Your task to perform on an android device: empty trash in google photos Image 0: 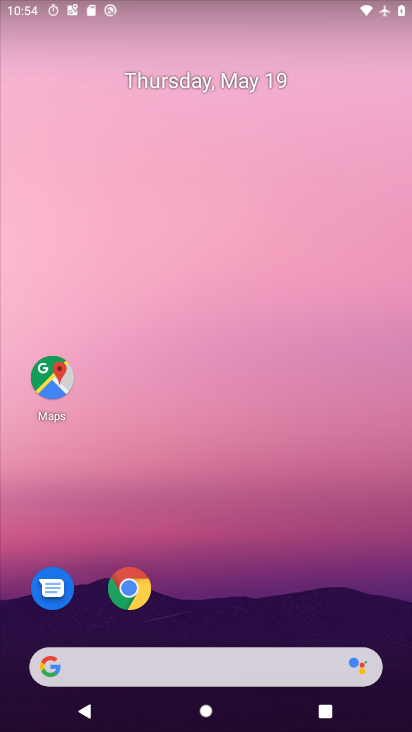
Step 0: press home button
Your task to perform on an android device: empty trash in google photos Image 1: 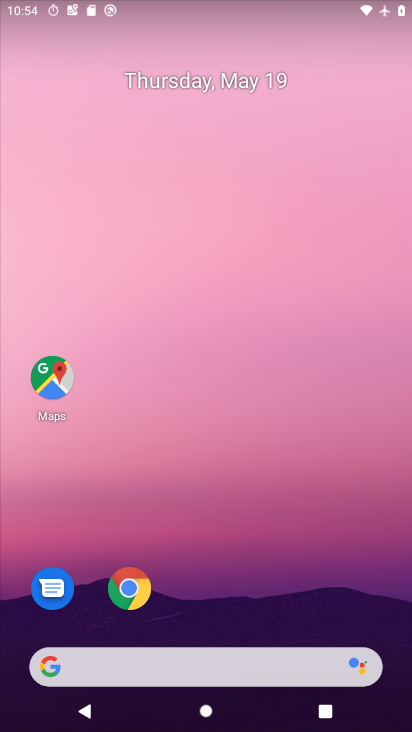
Step 1: drag from (162, 658) to (275, 175)
Your task to perform on an android device: empty trash in google photos Image 2: 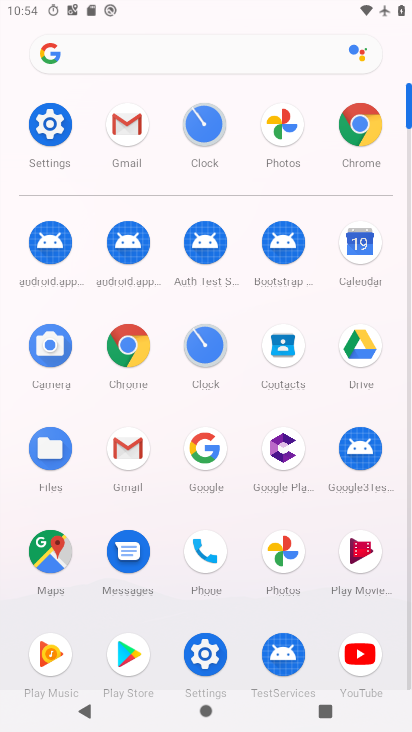
Step 2: click (283, 548)
Your task to perform on an android device: empty trash in google photos Image 3: 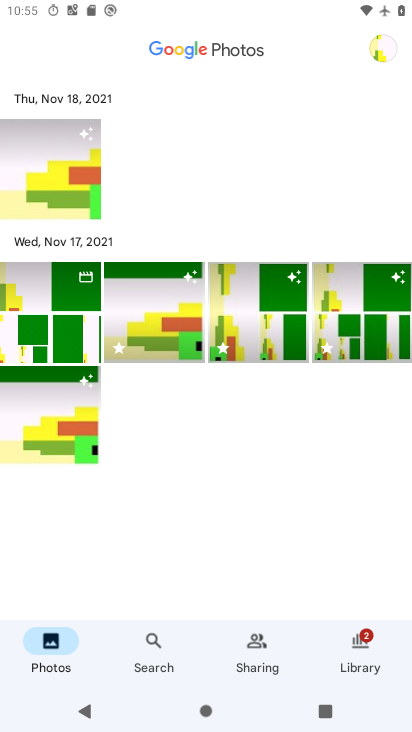
Step 3: click (360, 663)
Your task to perform on an android device: empty trash in google photos Image 4: 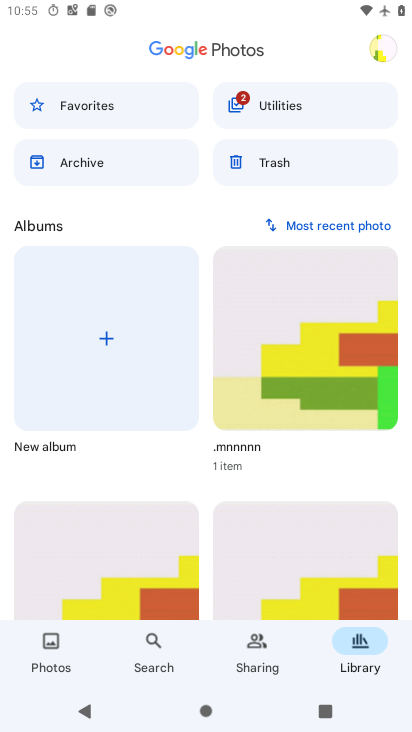
Step 4: click (299, 157)
Your task to perform on an android device: empty trash in google photos Image 5: 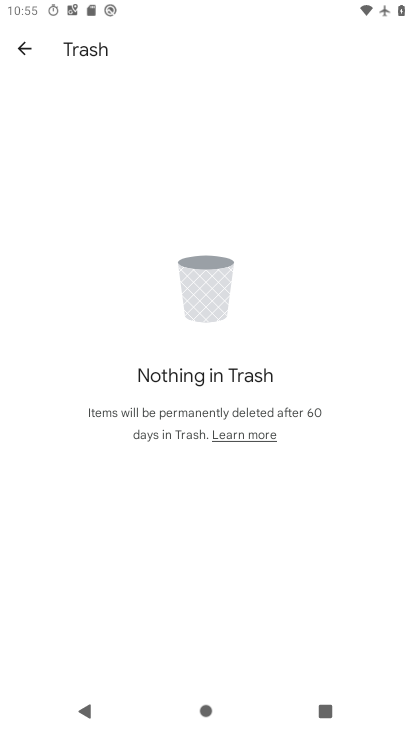
Step 5: task complete